Your task to perform on an android device: set the stopwatch Image 0: 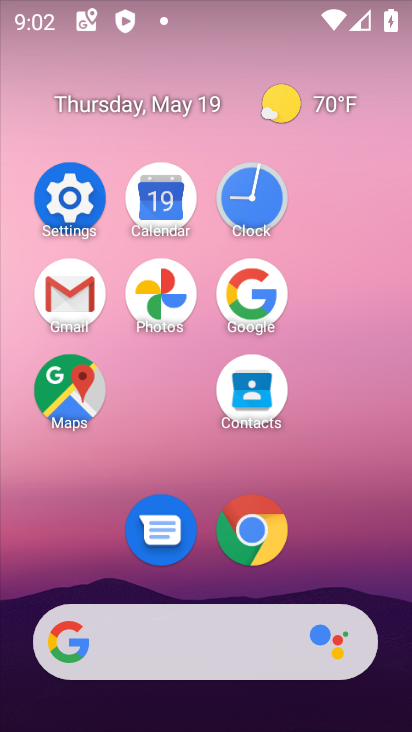
Step 0: click (249, 204)
Your task to perform on an android device: set the stopwatch Image 1: 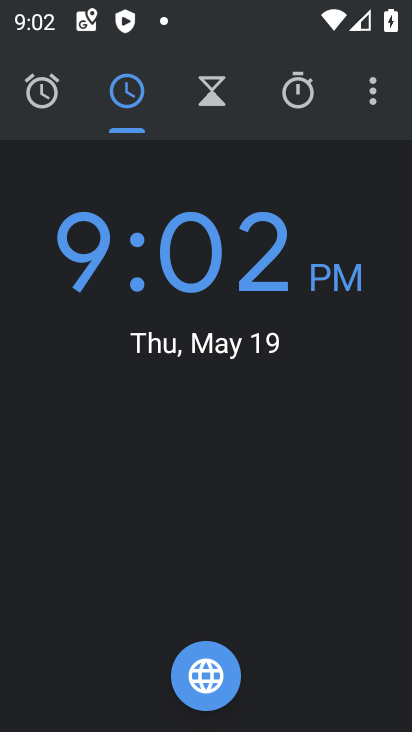
Step 1: click (269, 104)
Your task to perform on an android device: set the stopwatch Image 2: 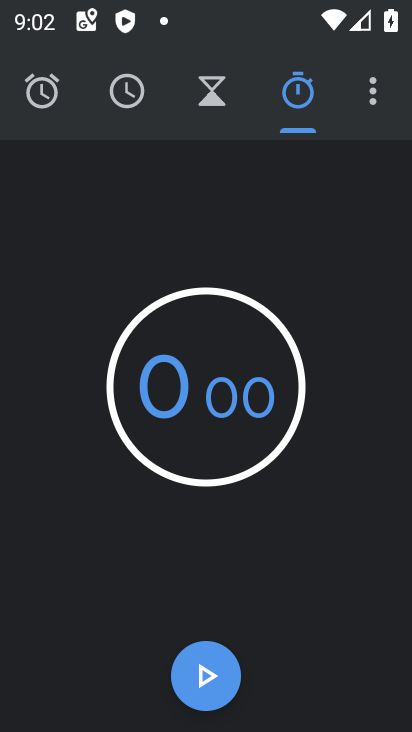
Step 2: click (189, 659)
Your task to perform on an android device: set the stopwatch Image 3: 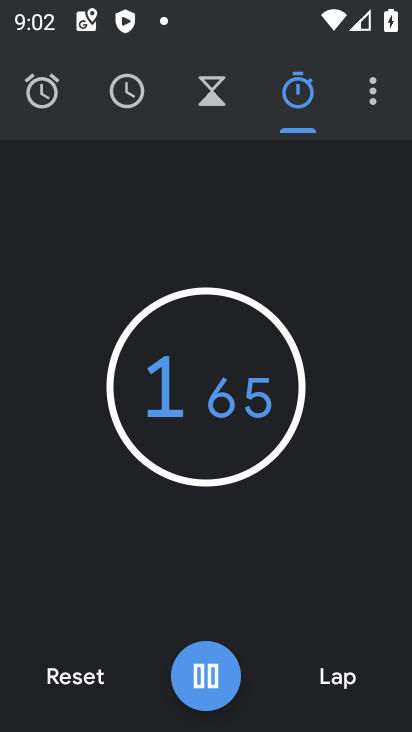
Step 3: task complete